Your task to perform on an android device: Add jbl charge 4 to the cart on walmart.com, then select checkout. Image 0: 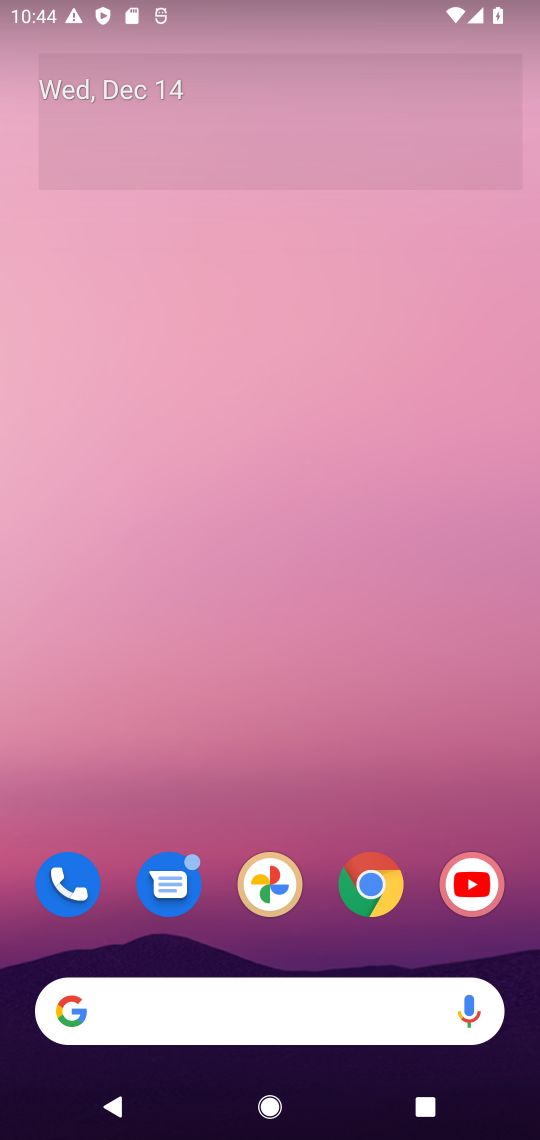
Step 0: click (377, 878)
Your task to perform on an android device: Add jbl charge 4 to the cart on walmart.com, then select checkout. Image 1: 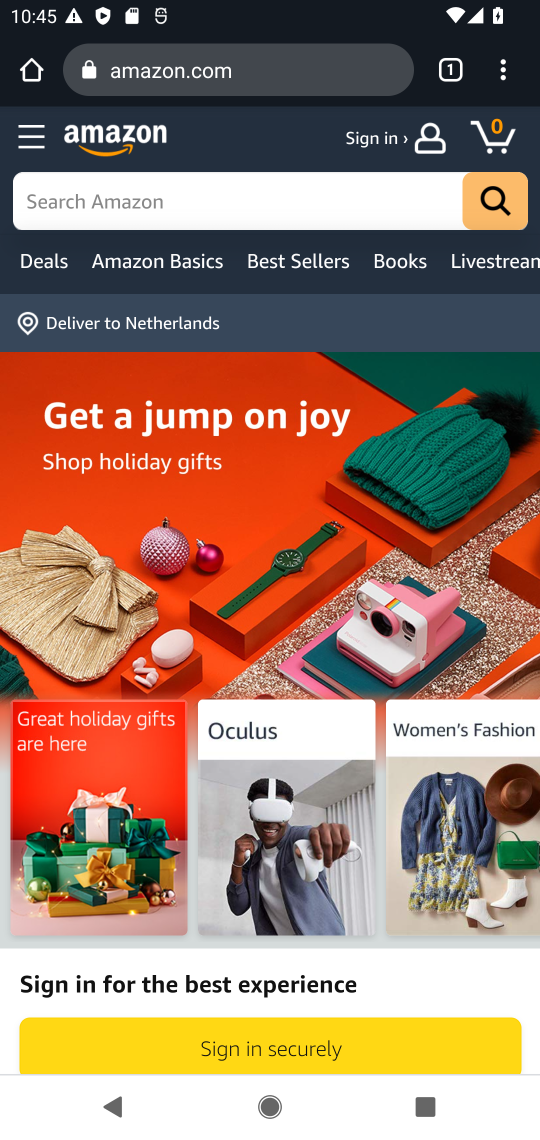
Step 1: click (276, 68)
Your task to perform on an android device: Add jbl charge 4 to the cart on walmart.com, then select checkout. Image 2: 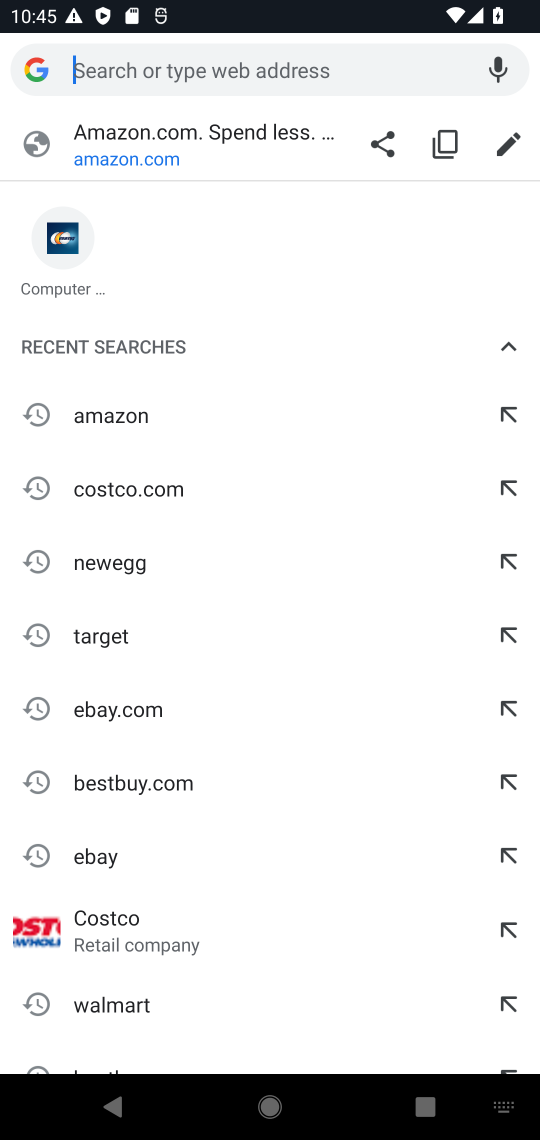
Step 2: press enter
Your task to perform on an android device: Add jbl charge 4 to the cart on walmart.com, then select checkout. Image 3: 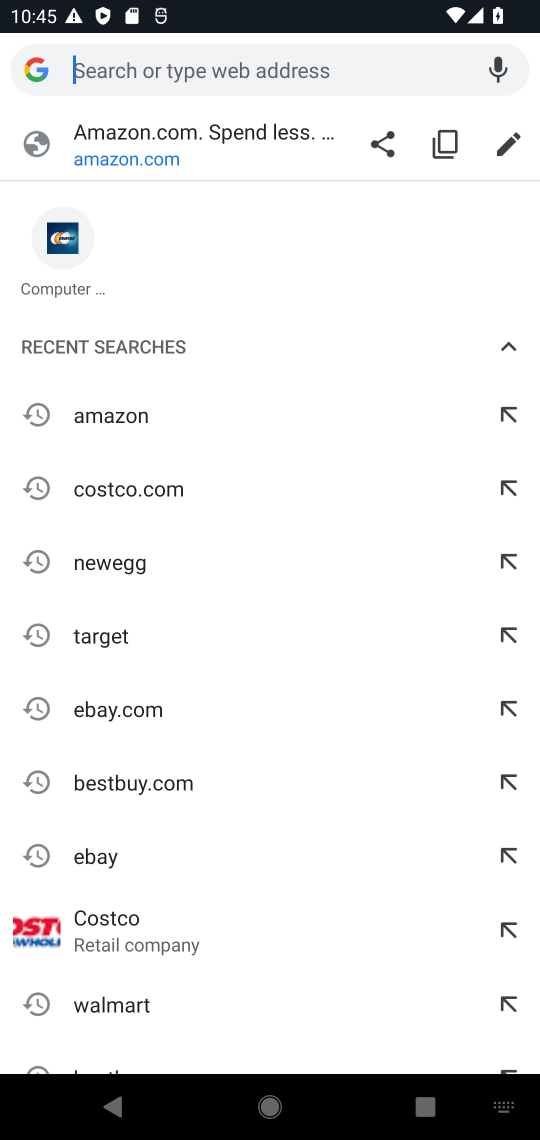
Step 3: type "walmart.com"
Your task to perform on an android device: Add jbl charge 4 to the cart on walmart.com, then select checkout. Image 4: 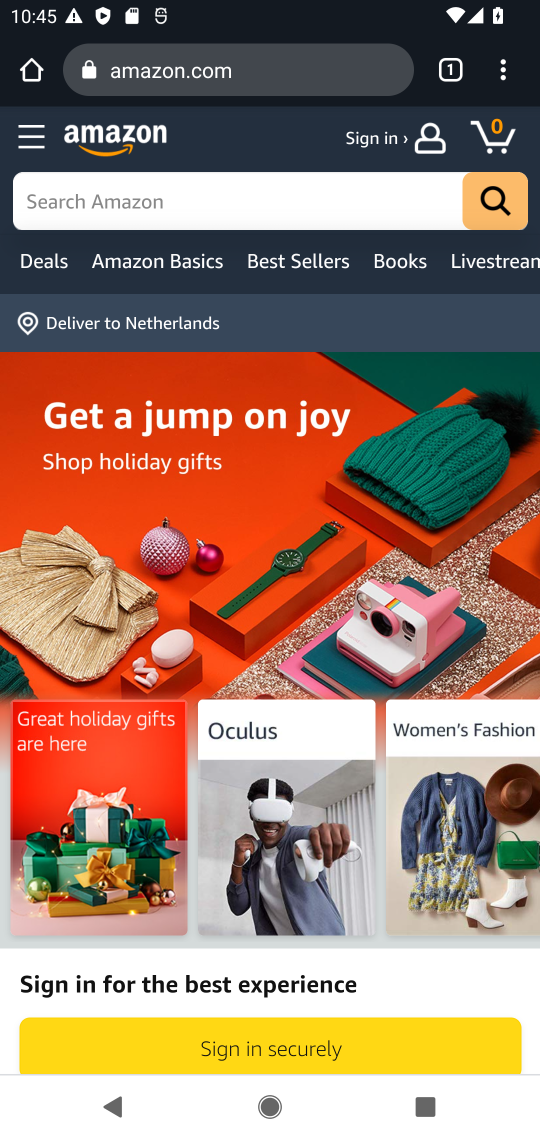
Step 4: click (35, 69)
Your task to perform on an android device: Add jbl charge 4 to the cart on walmart.com, then select checkout. Image 5: 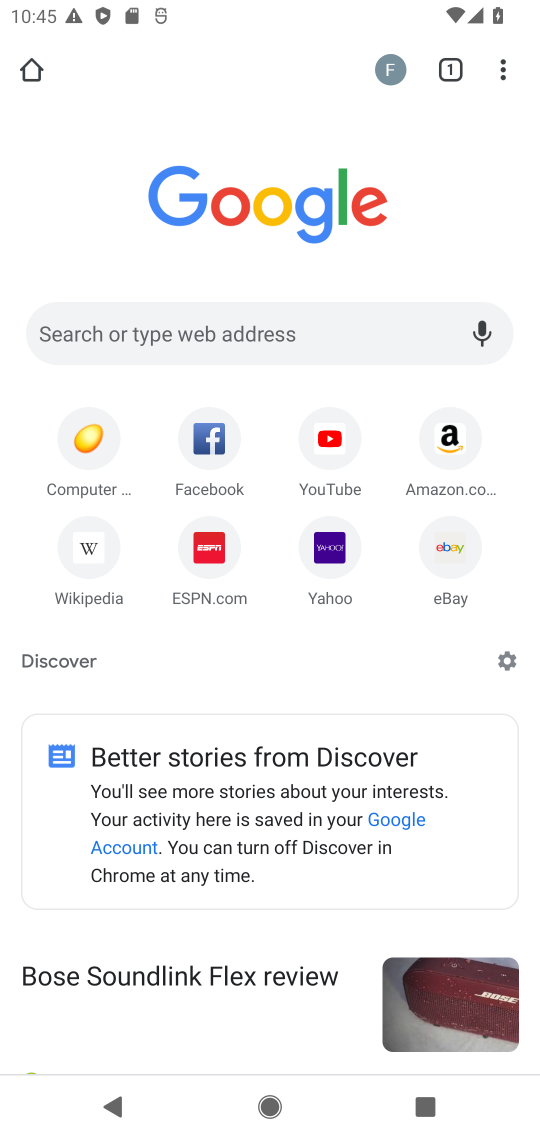
Step 5: click (242, 341)
Your task to perform on an android device: Add jbl charge 4 to the cart on walmart.com, then select checkout. Image 6: 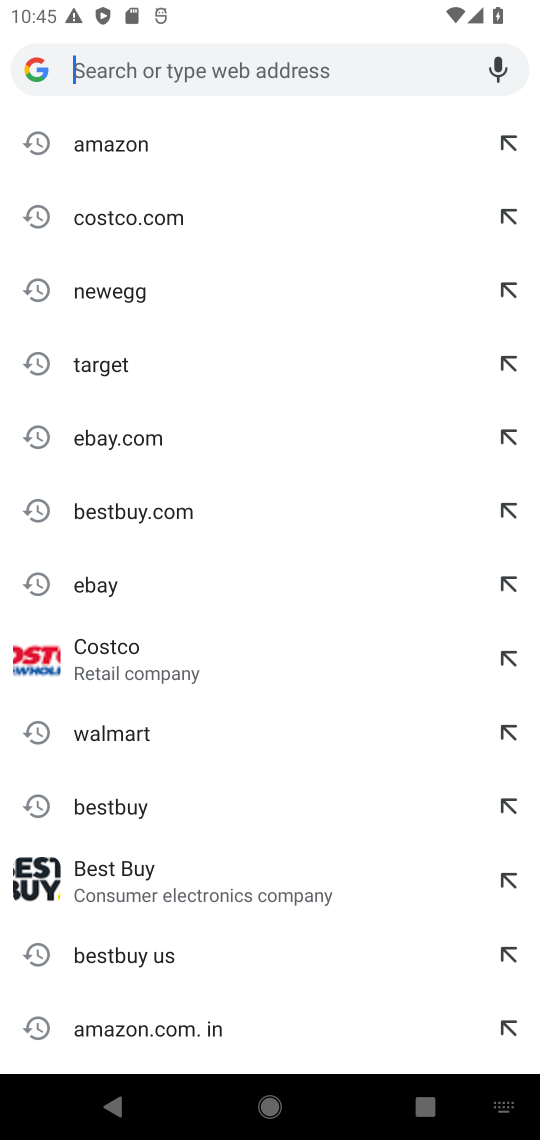
Step 6: press enter
Your task to perform on an android device: Add jbl charge 4 to the cart on walmart.com, then select checkout. Image 7: 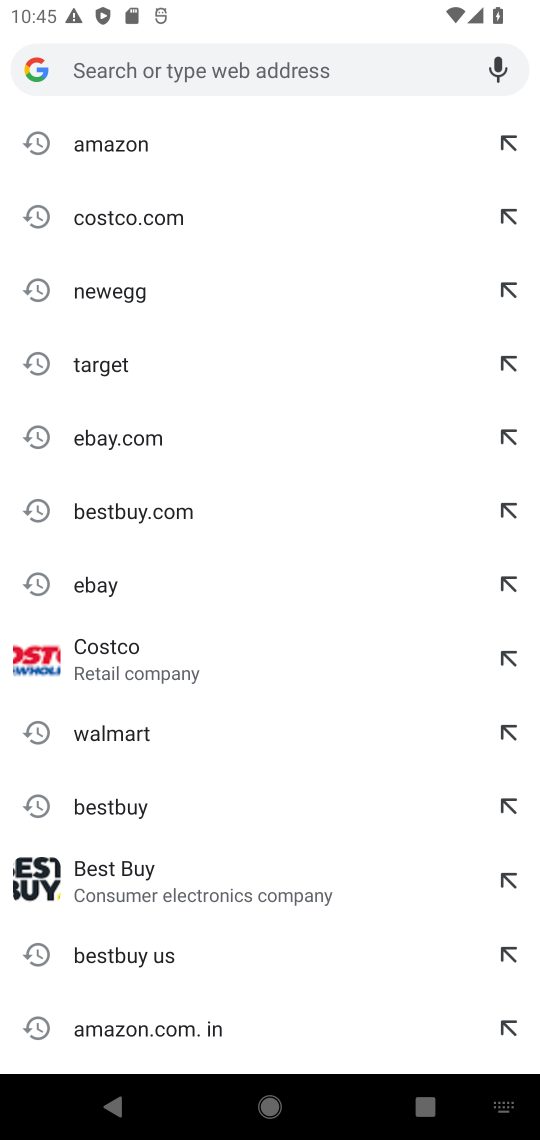
Step 7: type "walmart.com"
Your task to perform on an android device: Add jbl charge 4 to the cart on walmart.com, then select checkout. Image 8: 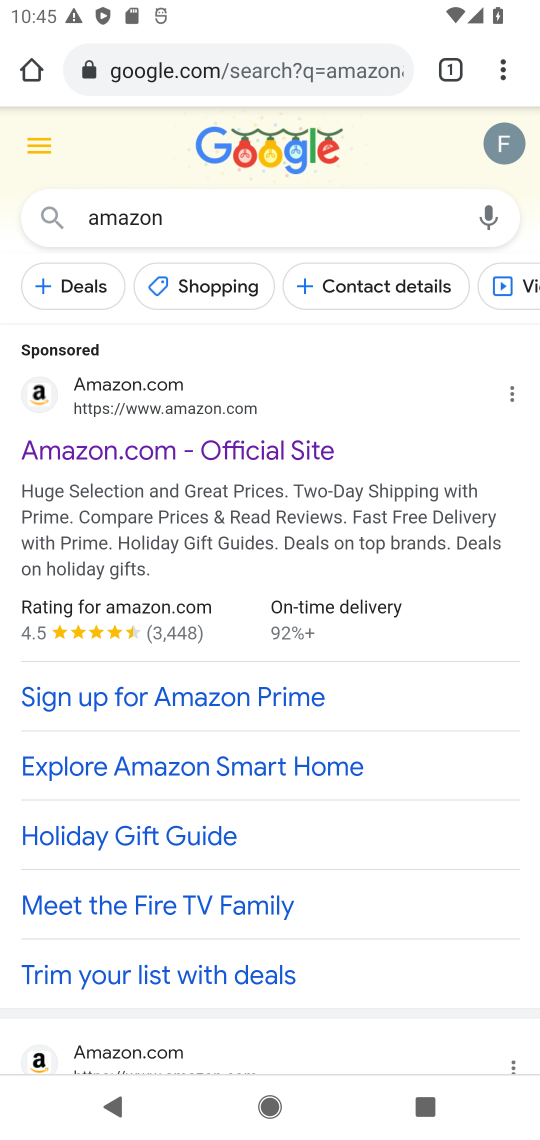
Step 8: click (221, 76)
Your task to perform on an android device: Add jbl charge 4 to the cart on walmart.com, then select checkout. Image 9: 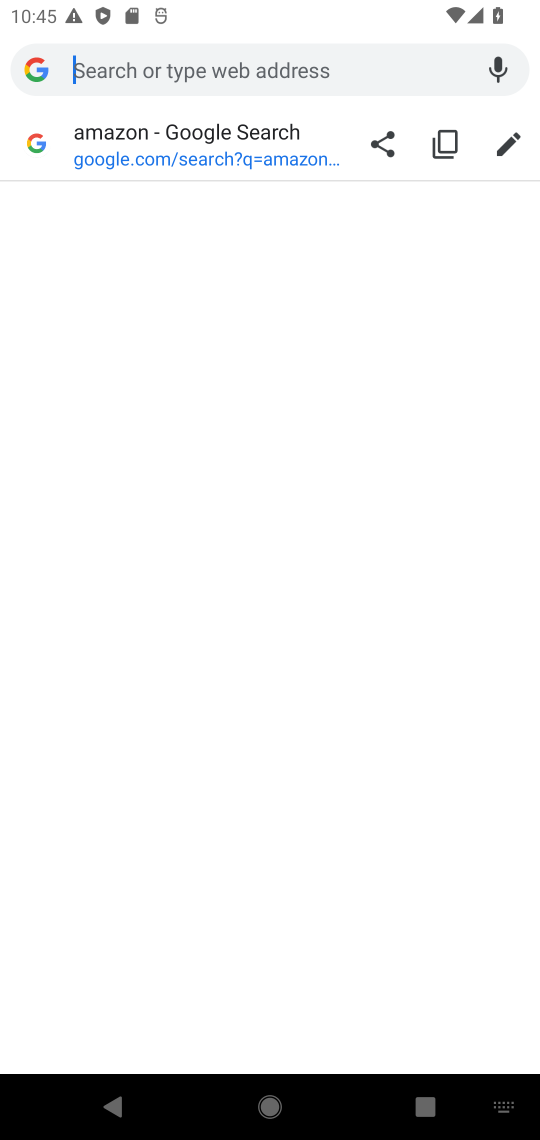
Step 9: press enter
Your task to perform on an android device: Add jbl charge 4 to the cart on walmart.com, then select checkout. Image 10: 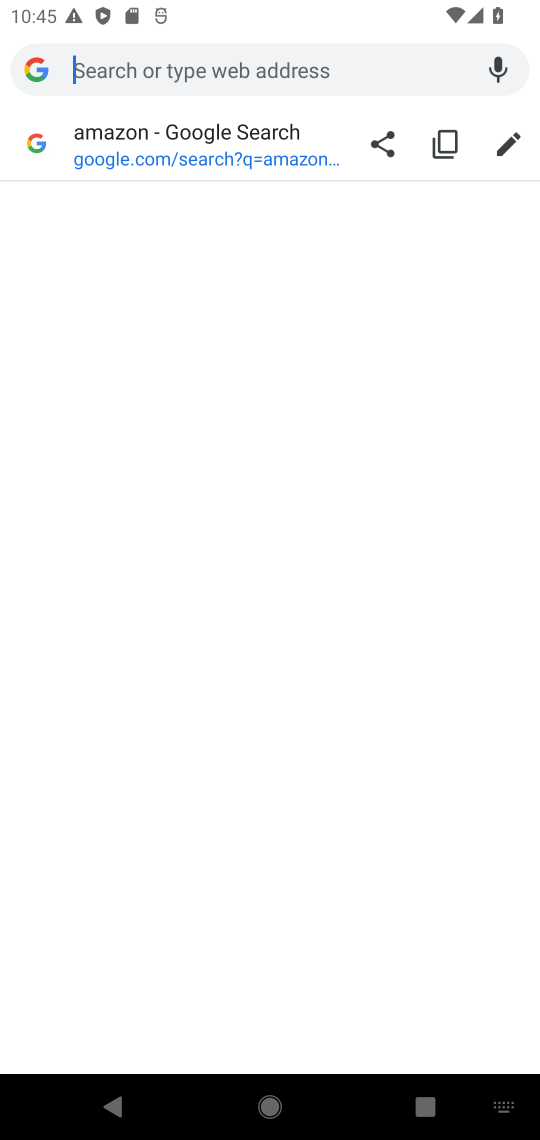
Step 10: type "walmart.com"
Your task to perform on an android device: Add jbl charge 4 to the cart on walmart.com, then select checkout. Image 11: 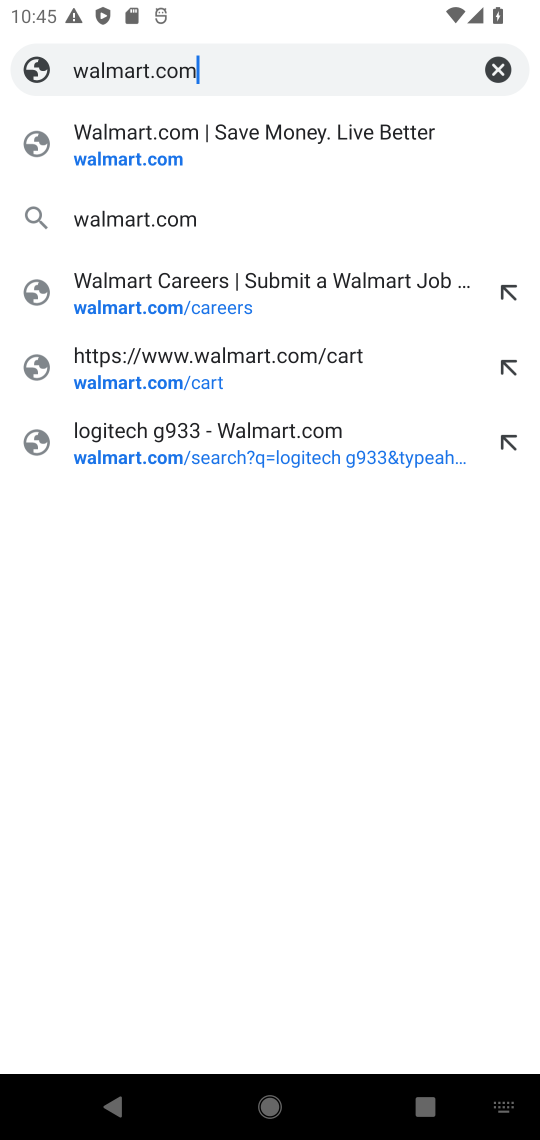
Step 11: click (180, 227)
Your task to perform on an android device: Add jbl charge 4 to the cart on walmart.com, then select checkout. Image 12: 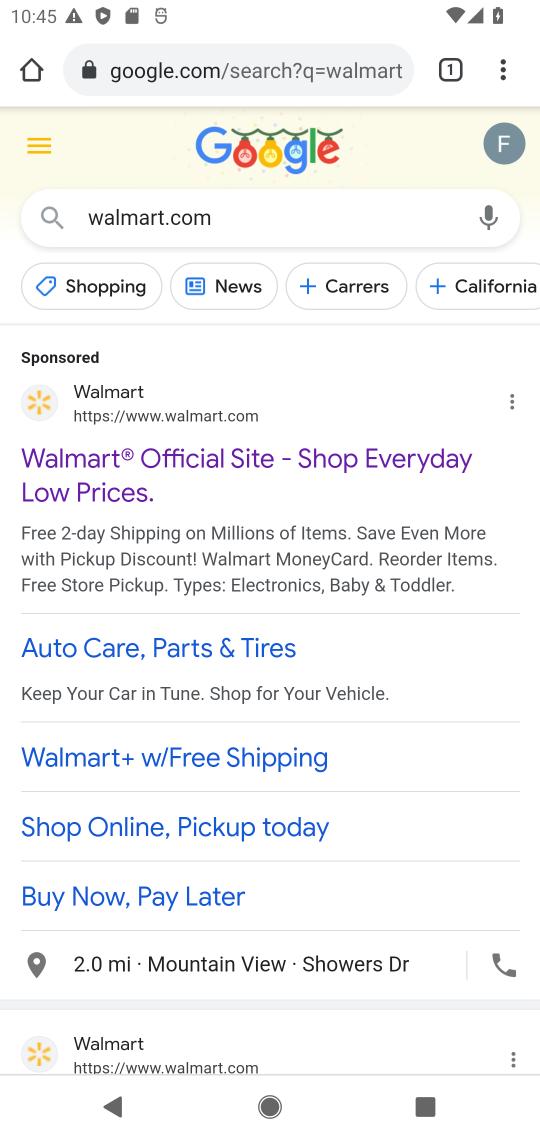
Step 12: click (111, 413)
Your task to perform on an android device: Add jbl charge 4 to the cart on walmart.com, then select checkout. Image 13: 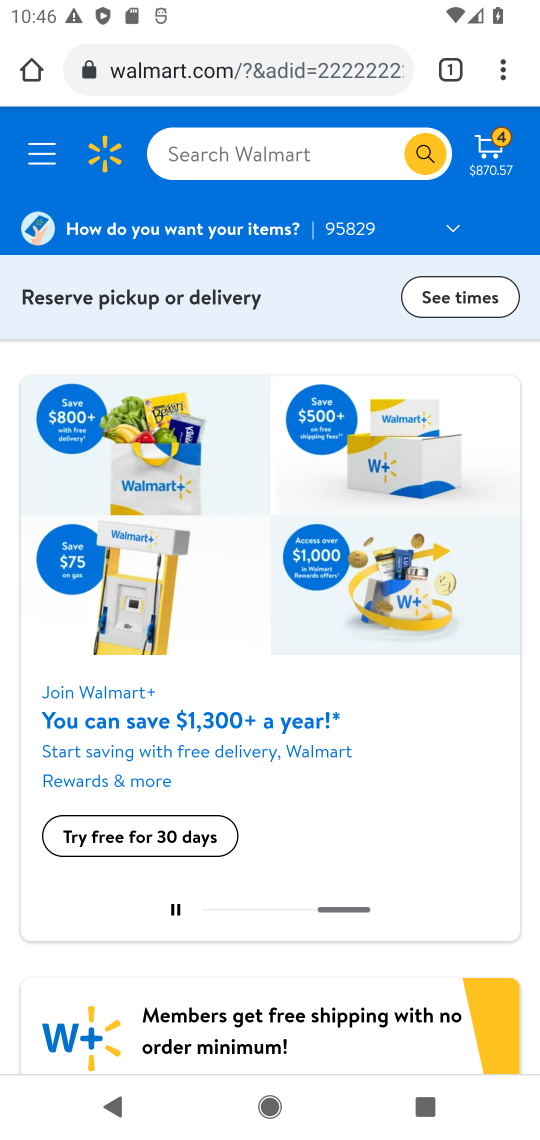
Step 13: click (302, 168)
Your task to perform on an android device: Add jbl charge 4 to the cart on walmart.com, then select checkout. Image 14: 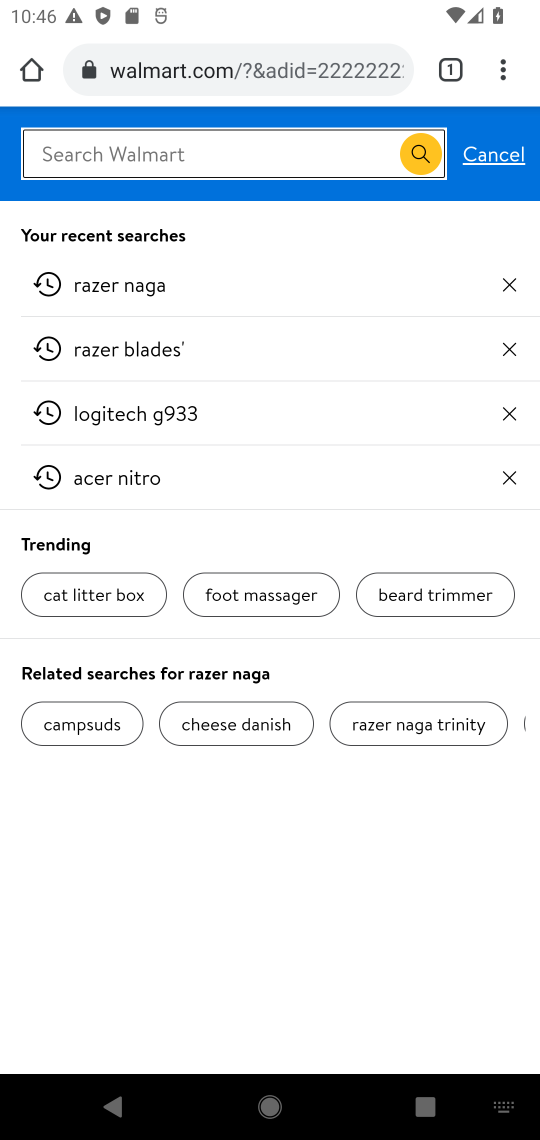
Step 14: type "jbl charge 4"
Your task to perform on an android device: Add jbl charge 4 to the cart on walmart.com, then select checkout. Image 15: 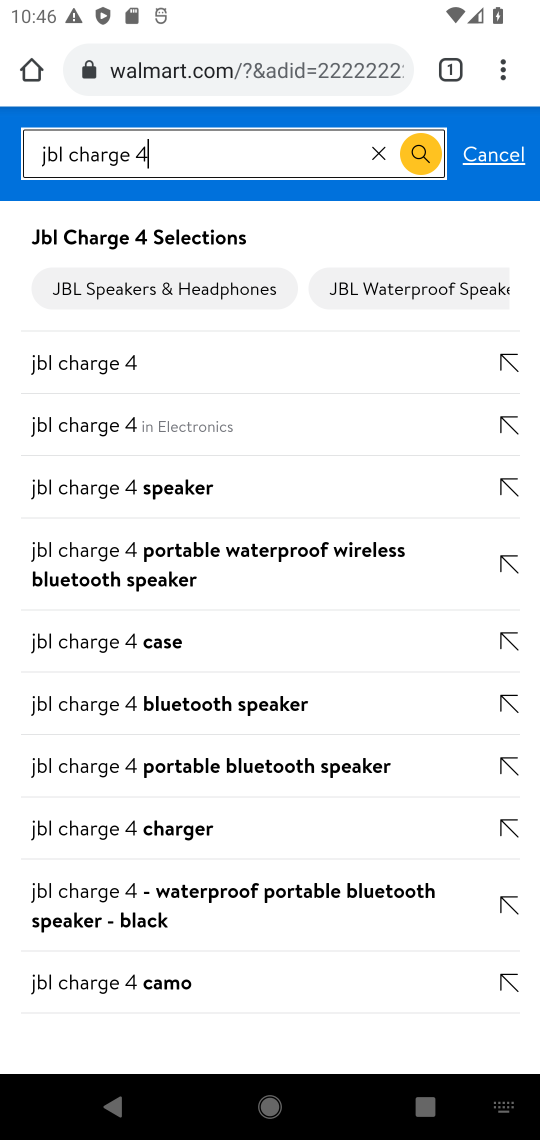
Step 15: press enter
Your task to perform on an android device: Add jbl charge 4 to the cart on walmart.com, then select checkout. Image 16: 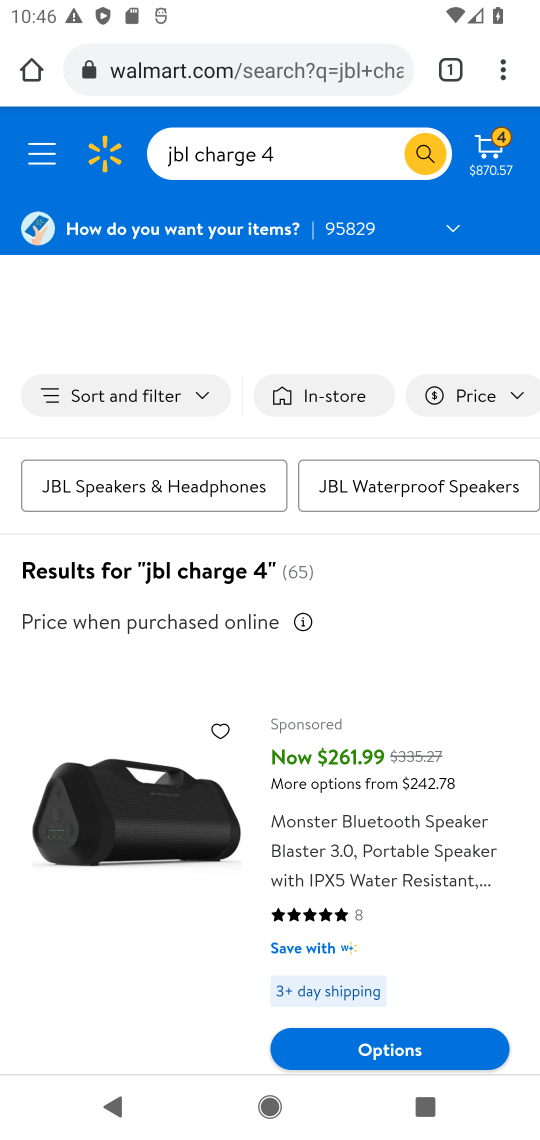
Step 16: drag from (354, 837) to (366, 641)
Your task to perform on an android device: Add jbl charge 4 to the cart on walmart.com, then select checkout. Image 17: 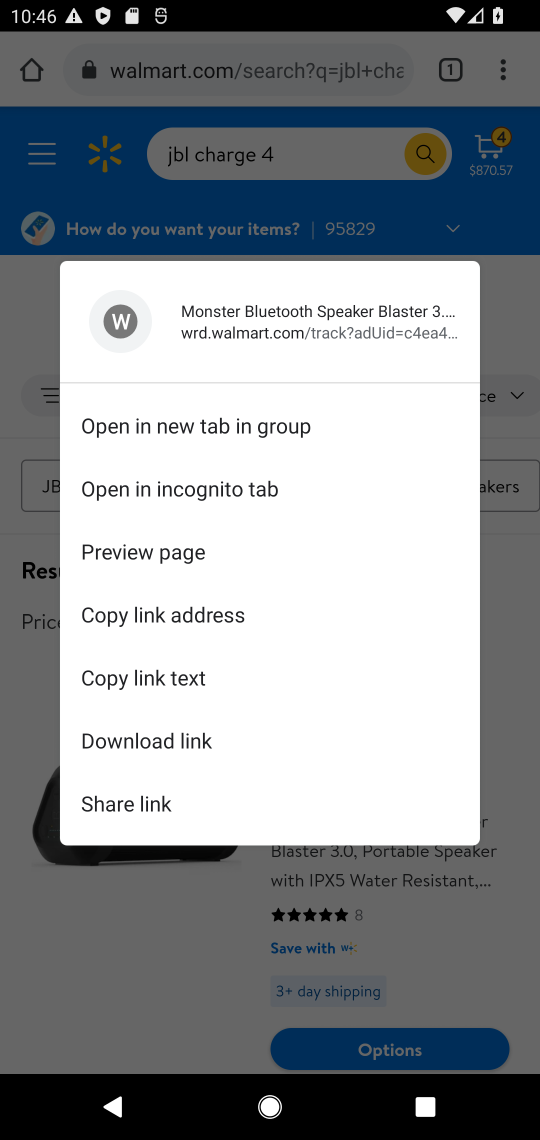
Step 17: click (342, 921)
Your task to perform on an android device: Add jbl charge 4 to the cart on walmart.com, then select checkout. Image 18: 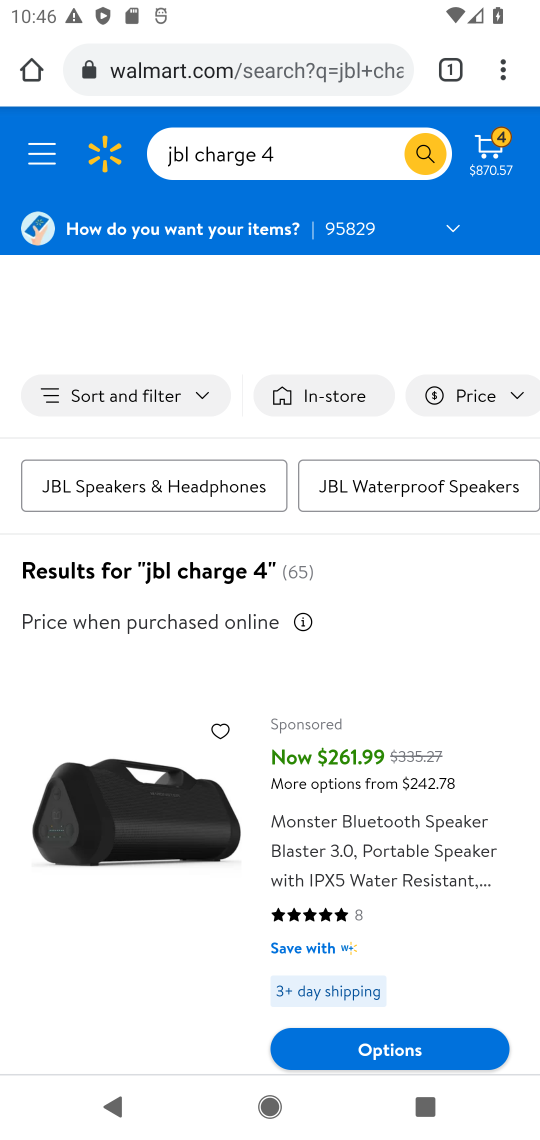
Step 18: task complete